Your task to perform on an android device: Turn off the flashlight Image 0: 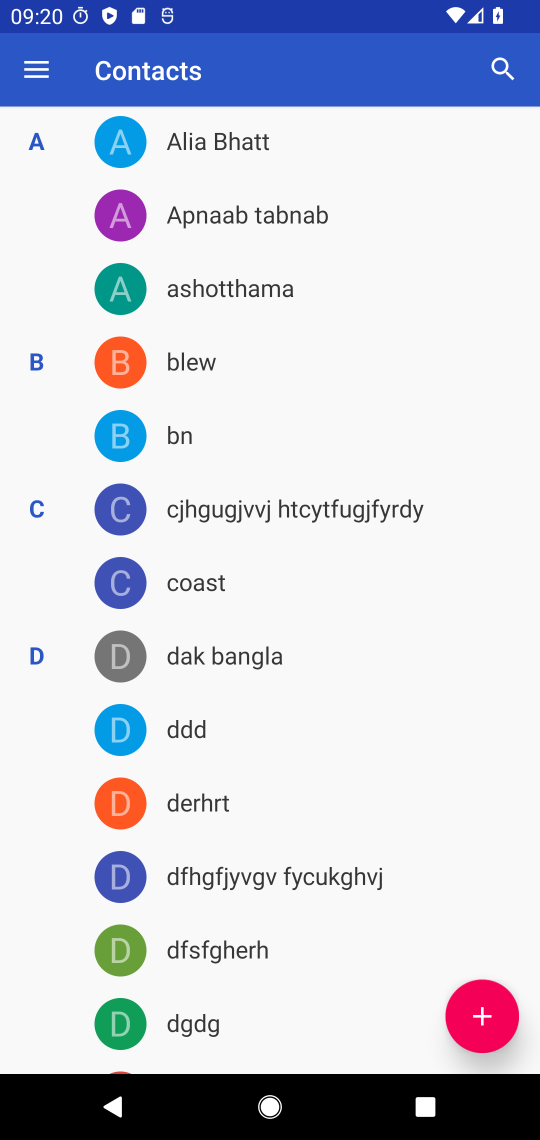
Step 0: press home button
Your task to perform on an android device: Turn off the flashlight Image 1: 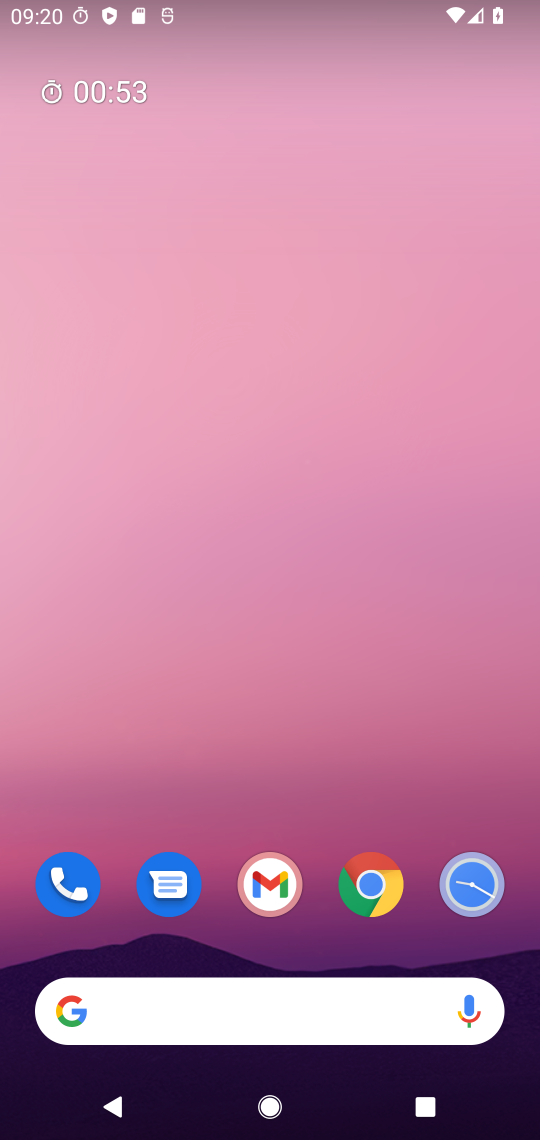
Step 1: drag from (272, 828) to (266, 143)
Your task to perform on an android device: Turn off the flashlight Image 2: 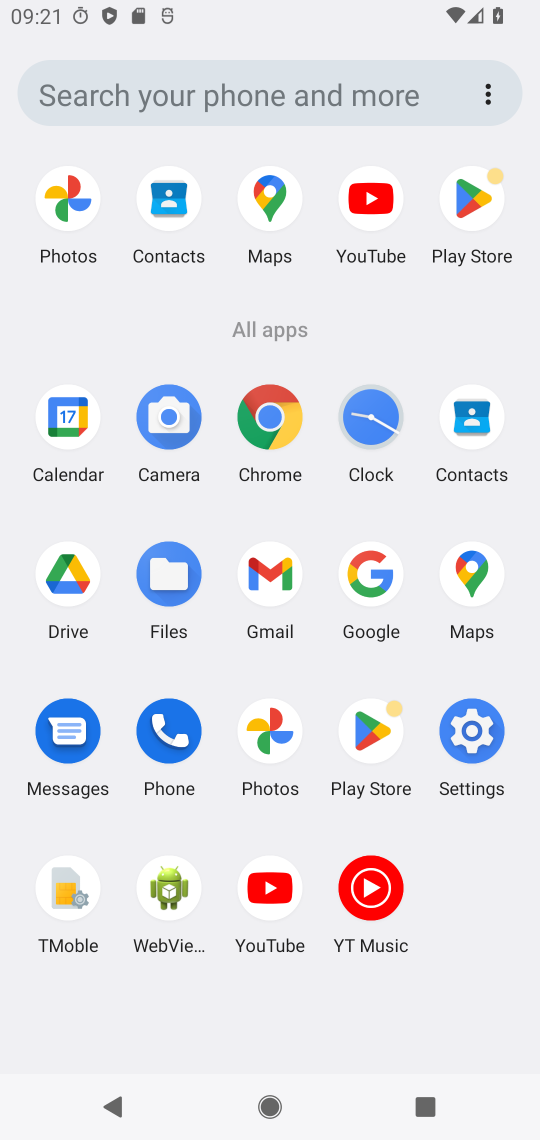
Step 2: click (438, 731)
Your task to perform on an android device: Turn off the flashlight Image 3: 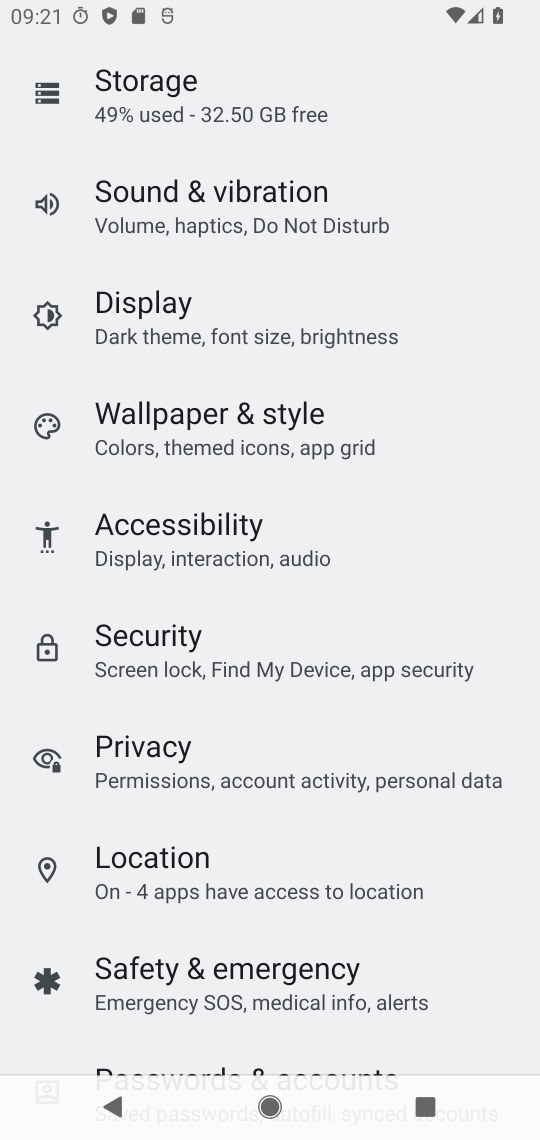
Step 3: task complete